Your task to perform on an android device: Go to privacy settings Image 0: 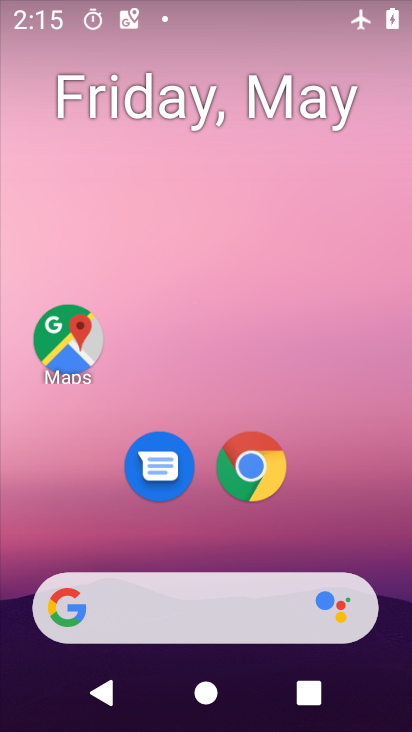
Step 0: drag from (343, 536) to (349, 147)
Your task to perform on an android device: Go to privacy settings Image 1: 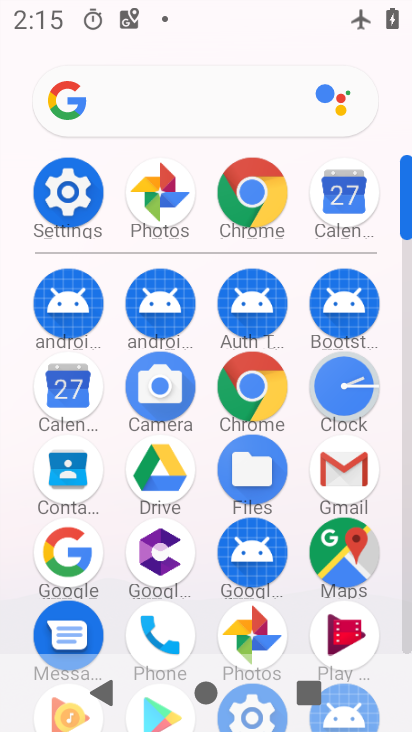
Step 1: click (63, 190)
Your task to perform on an android device: Go to privacy settings Image 2: 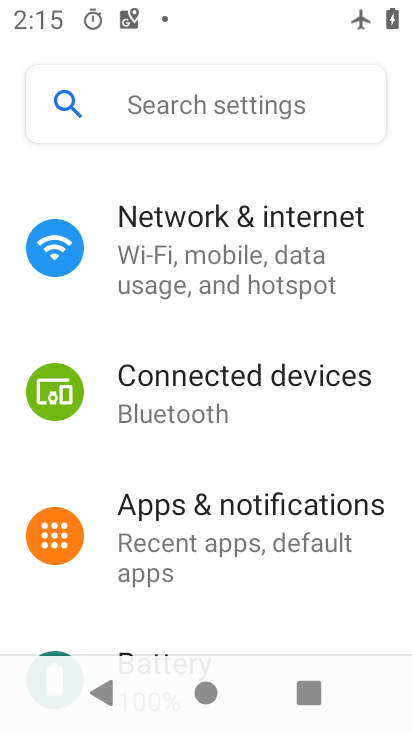
Step 2: drag from (232, 542) to (266, 155)
Your task to perform on an android device: Go to privacy settings Image 3: 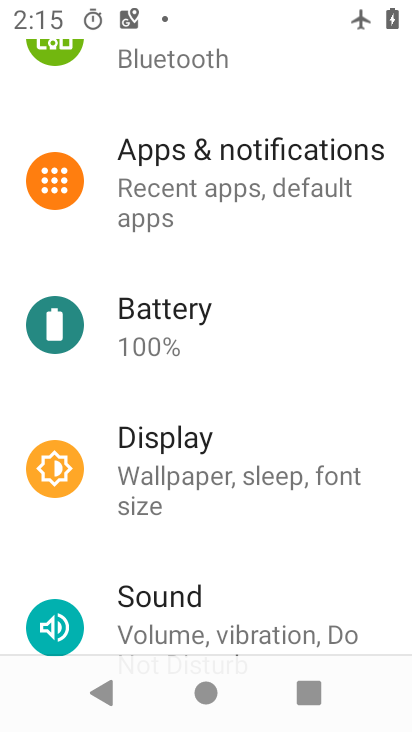
Step 3: drag from (240, 563) to (298, 102)
Your task to perform on an android device: Go to privacy settings Image 4: 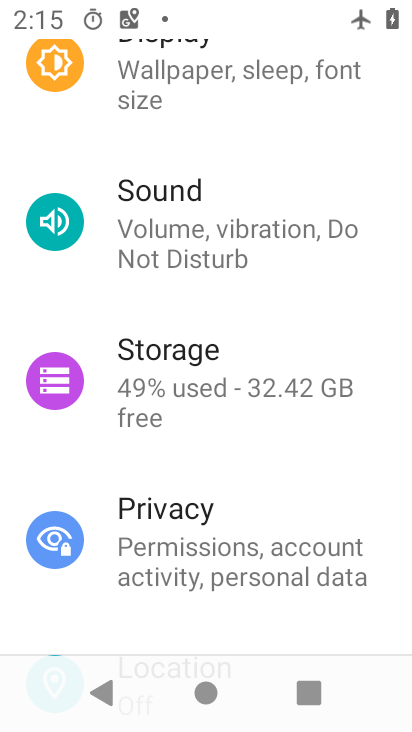
Step 4: click (193, 509)
Your task to perform on an android device: Go to privacy settings Image 5: 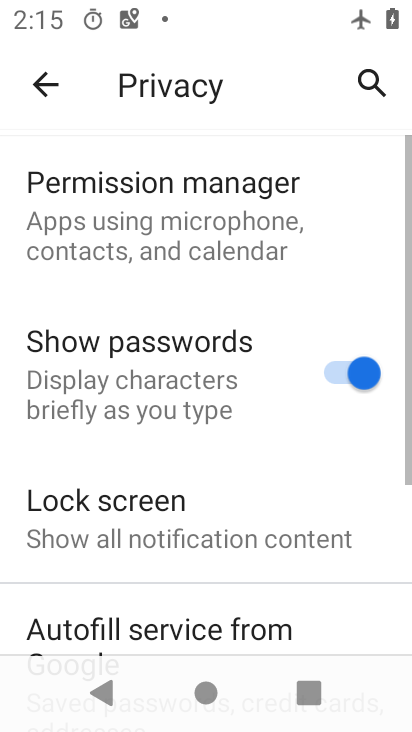
Step 5: task complete